Your task to perform on an android device: Search for pizza restaurants on Maps Image 0: 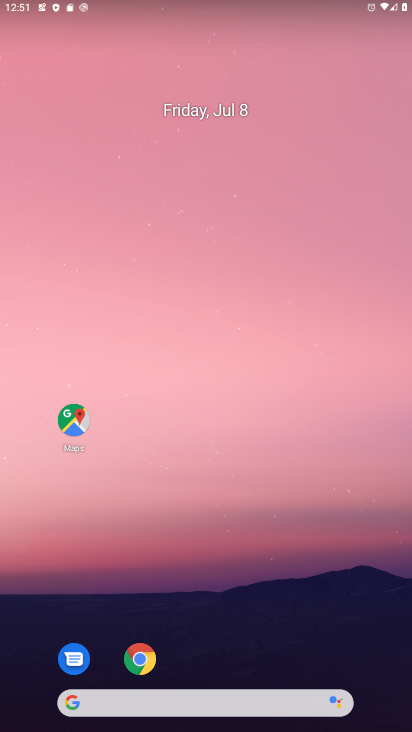
Step 0: click (73, 424)
Your task to perform on an android device: Search for pizza restaurants on Maps Image 1: 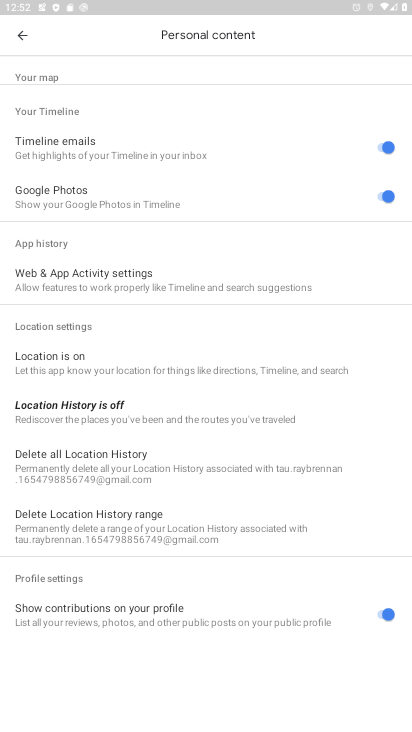
Step 1: click (23, 34)
Your task to perform on an android device: Search for pizza restaurants on Maps Image 2: 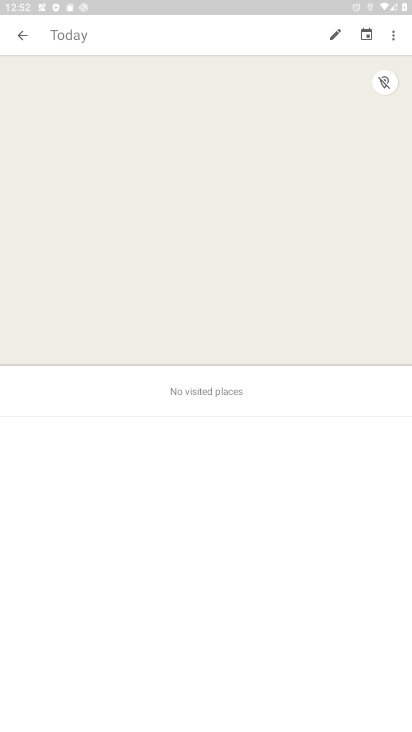
Step 2: click (25, 36)
Your task to perform on an android device: Search for pizza restaurants on Maps Image 3: 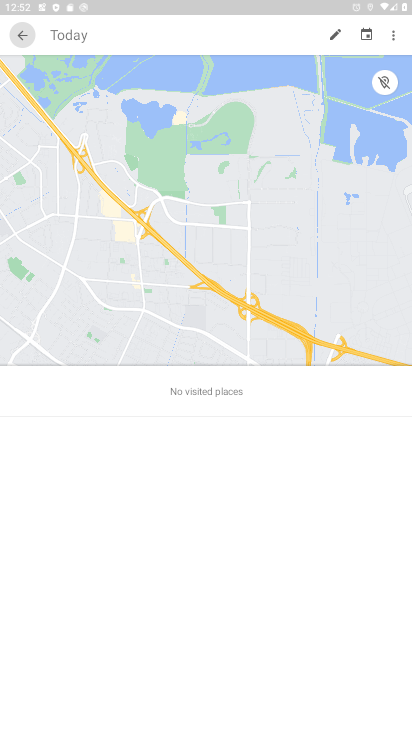
Step 3: click (104, 33)
Your task to perform on an android device: Search for pizza restaurants on Maps Image 4: 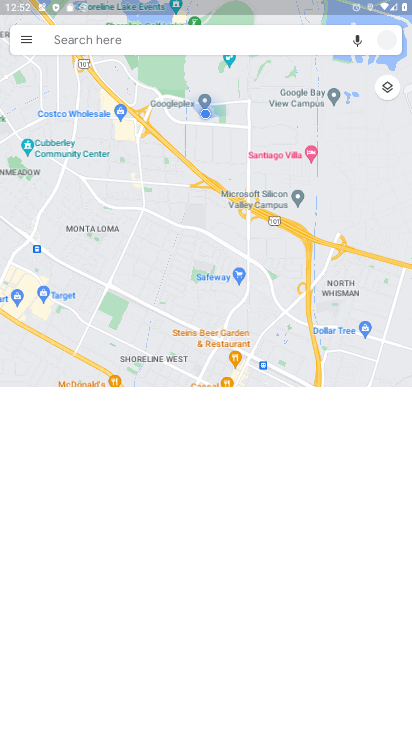
Step 4: click (65, 38)
Your task to perform on an android device: Search for pizza restaurants on Maps Image 5: 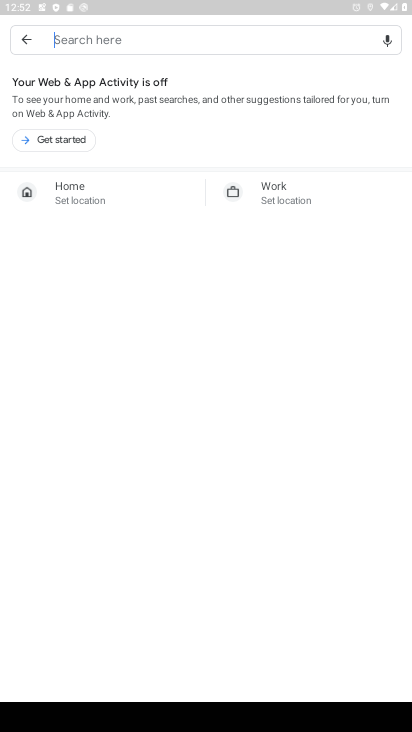
Step 5: click (124, 37)
Your task to perform on an android device: Search for pizza restaurants on Maps Image 6: 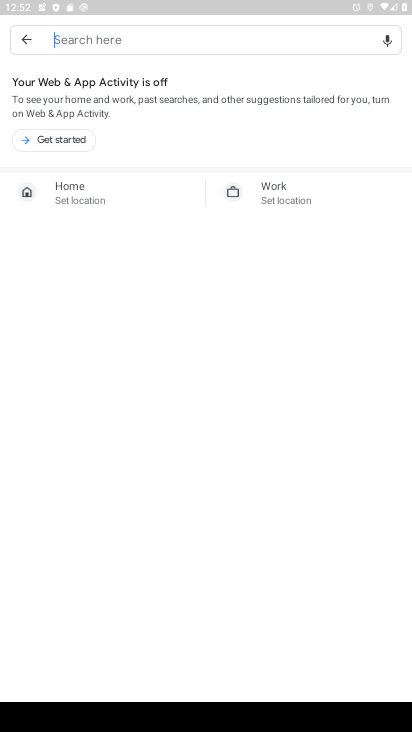
Step 6: type "pizza restaurants"
Your task to perform on an android device: Search for pizza restaurants on Maps Image 7: 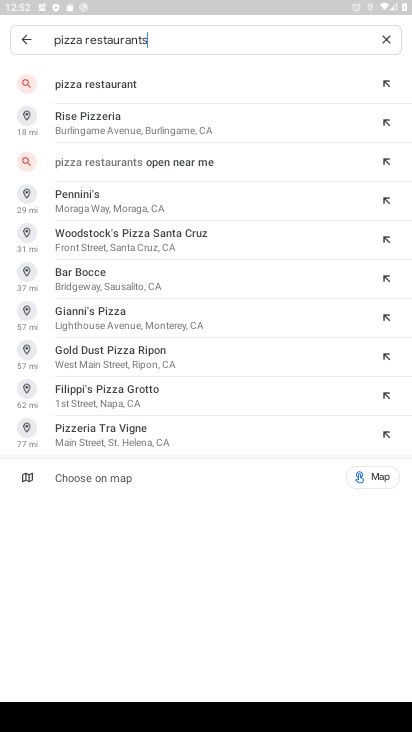
Step 7: click (104, 86)
Your task to perform on an android device: Search for pizza restaurants on Maps Image 8: 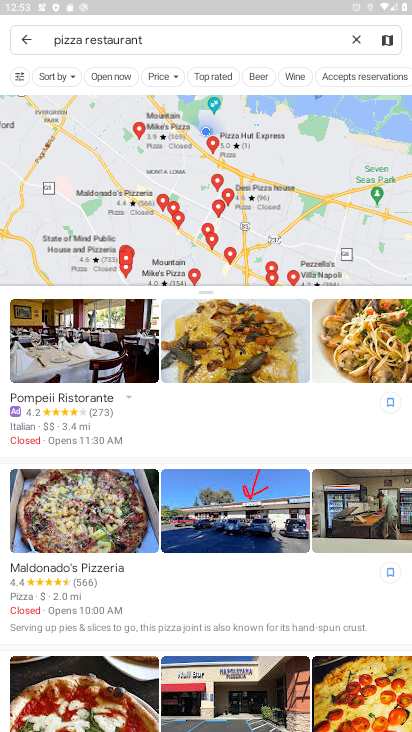
Step 8: task complete